Your task to perform on an android device: clear history in the chrome app Image 0: 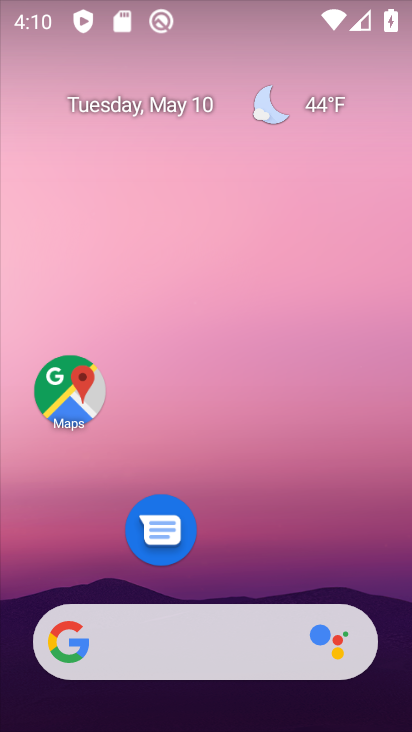
Step 0: drag from (259, 533) to (294, 40)
Your task to perform on an android device: clear history in the chrome app Image 1: 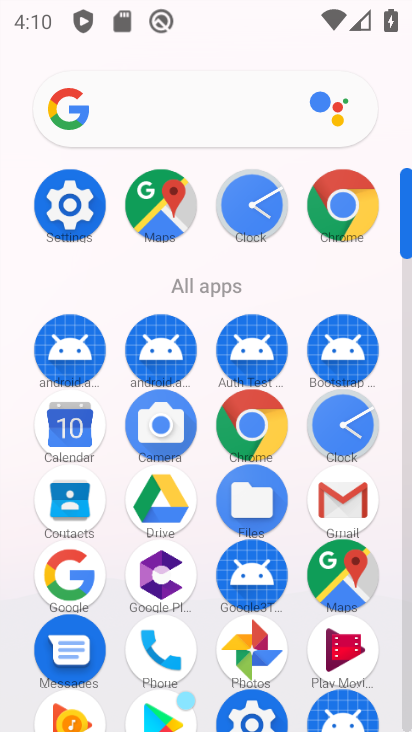
Step 1: click (342, 214)
Your task to perform on an android device: clear history in the chrome app Image 2: 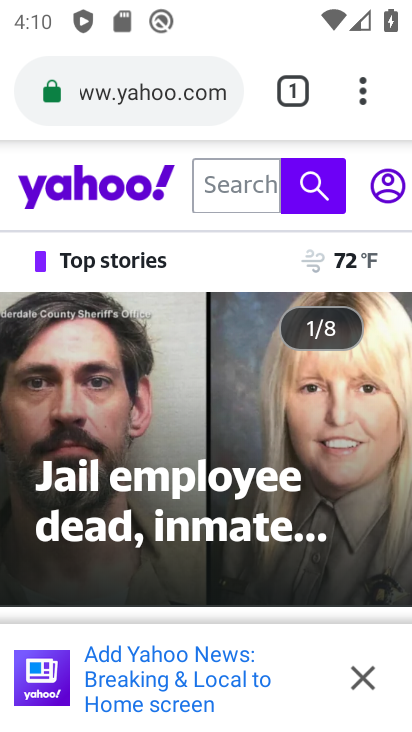
Step 2: click (357, 85)
Your task to perform on an android device: clear history in the chrome app Image 3: 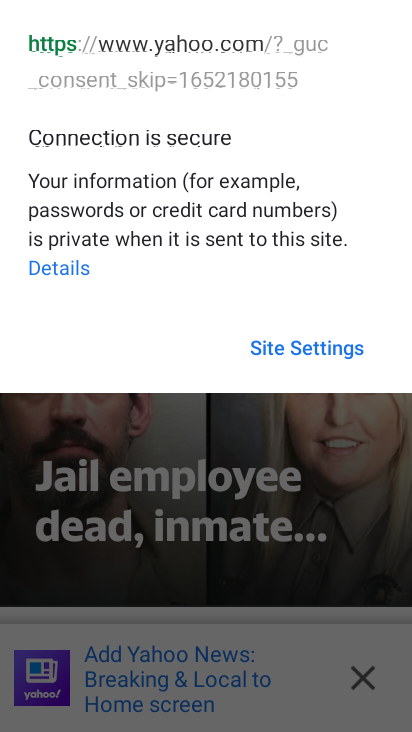
Step 3: click (184, 458)
Your task to perform on an android device: clear history in the chrome app Image 4: 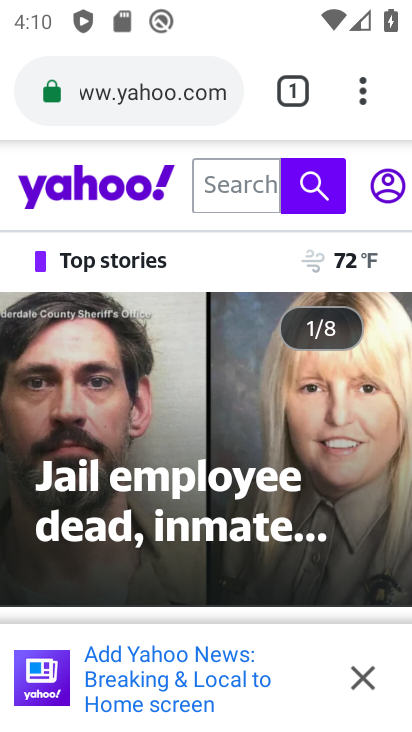
Step 4: drag from (362, 79) to (106, 523)
Your task to perform on an android device: clear history in the chrome app Image 5: 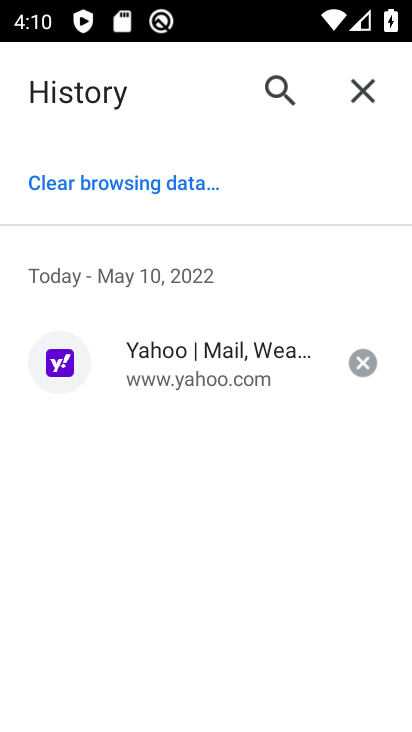
Step 5: click (116, 186)
Your task to perform on an android device: clear history in the chrome app Image 6: 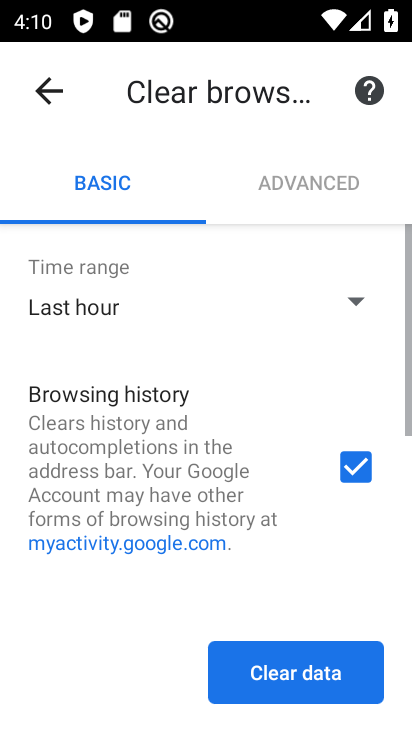
Step 6: click (271, 664)
Your task to perform on an android device: clear history in the chrome app Image 7: 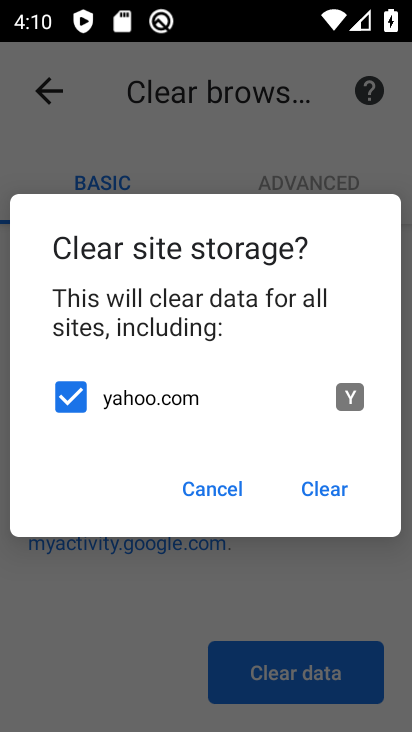
Step 7: click (325, 488)
Your task to perform on an android device: clear history in the chrome app Image 8: 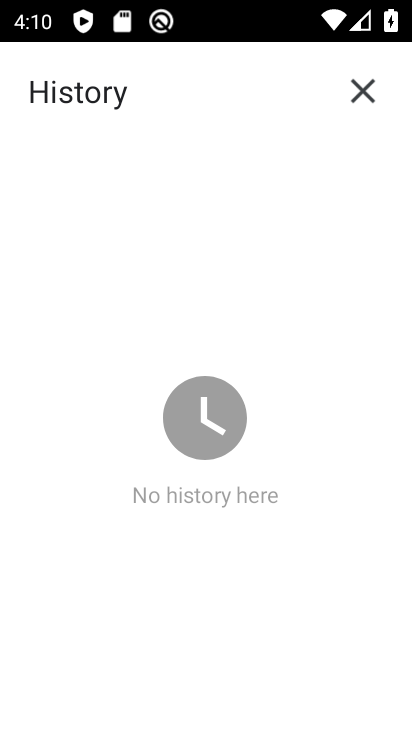
Step 8: task complete